Your task to perform on an android device: check data usage Image 0: 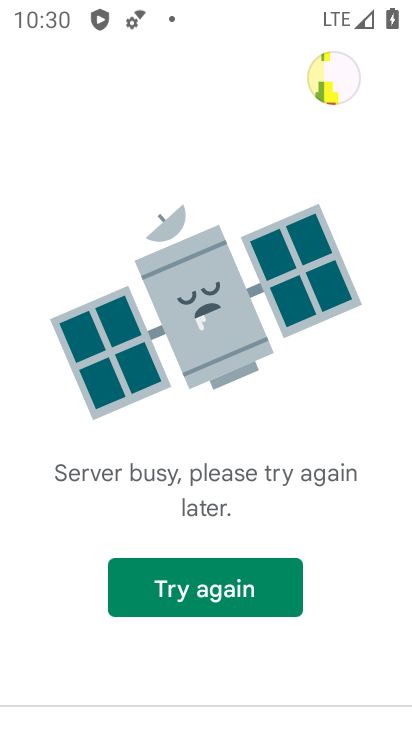
Step 0: press back button
Your task to perform on an android device: check data usage Image 1: 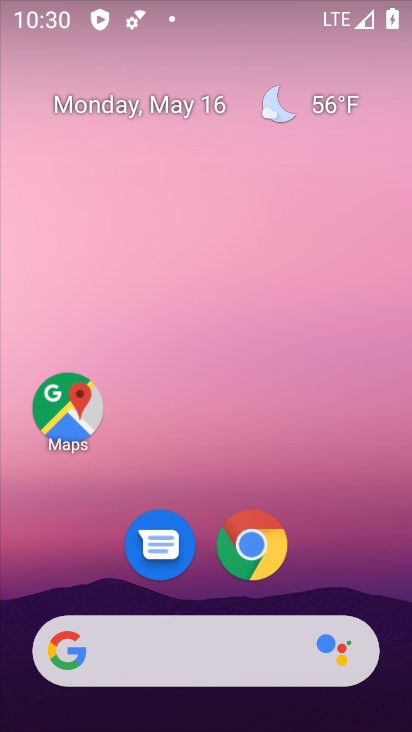
Step 1: drag from (329, 568) to (254, 269)
Your task to perform on an android device: check data usage Image 2: 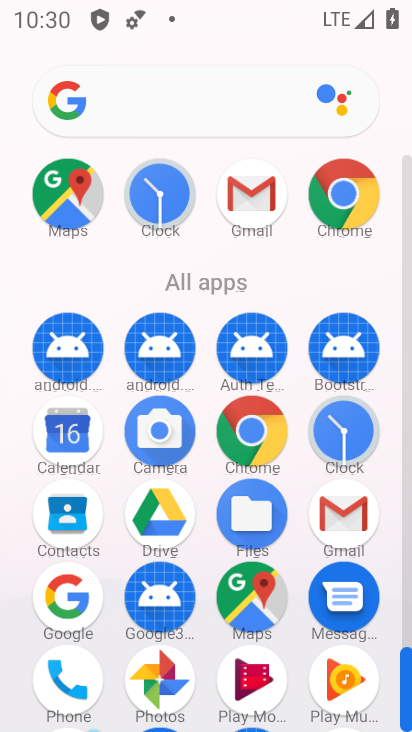
Step 2: drag from (217, 548) to (216, 255)
Your task to perform on an android device: check data usage Image 3: 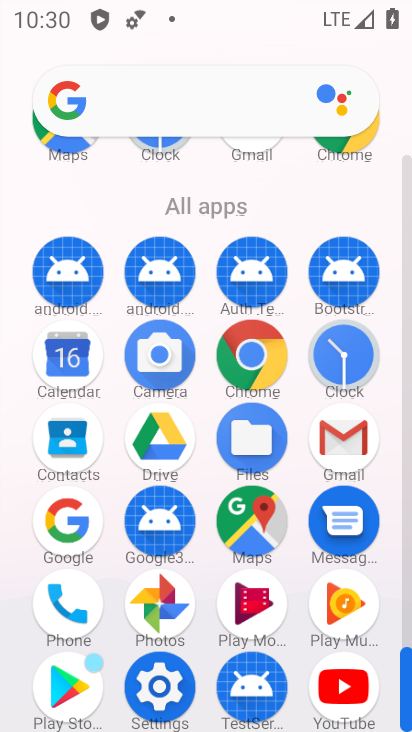
Step 3: click (158, 687)
Your task to perform on an android device: check data usage Image 4: 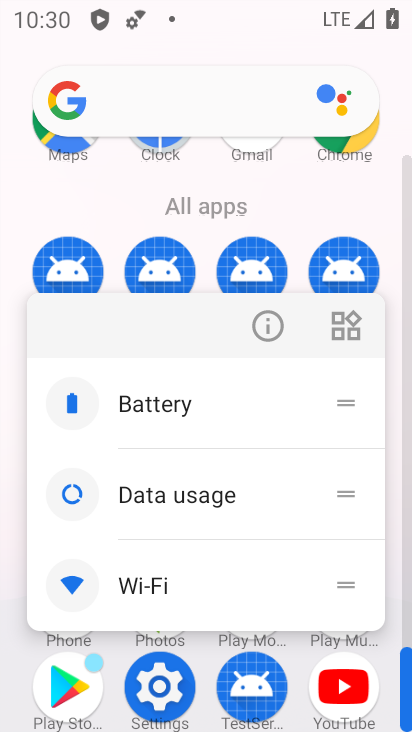
Step 4: click (188, 495)
Your task to perform on an android device: check data usage Image 5: 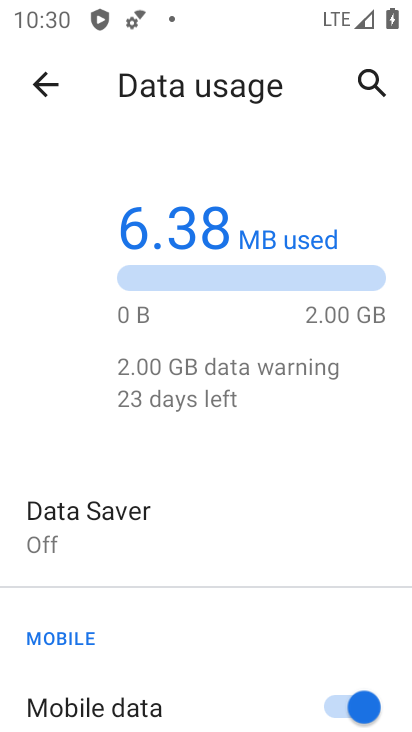
Step 5: task complete